Your task to perform on an android device: What's the news this week? Image 0: 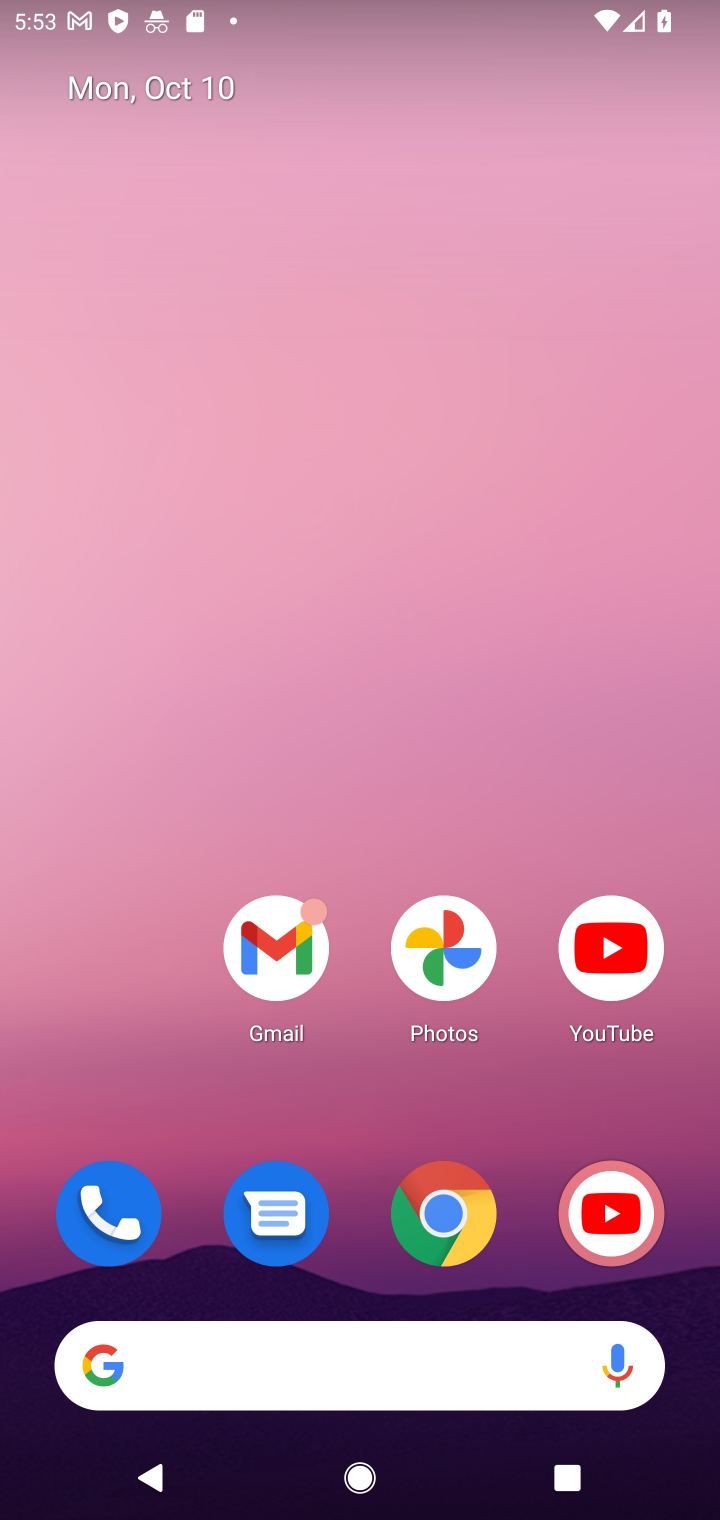
Step 0: click (373, 1366)
Your task to perform on an android device: What's the news this week? Image 1: 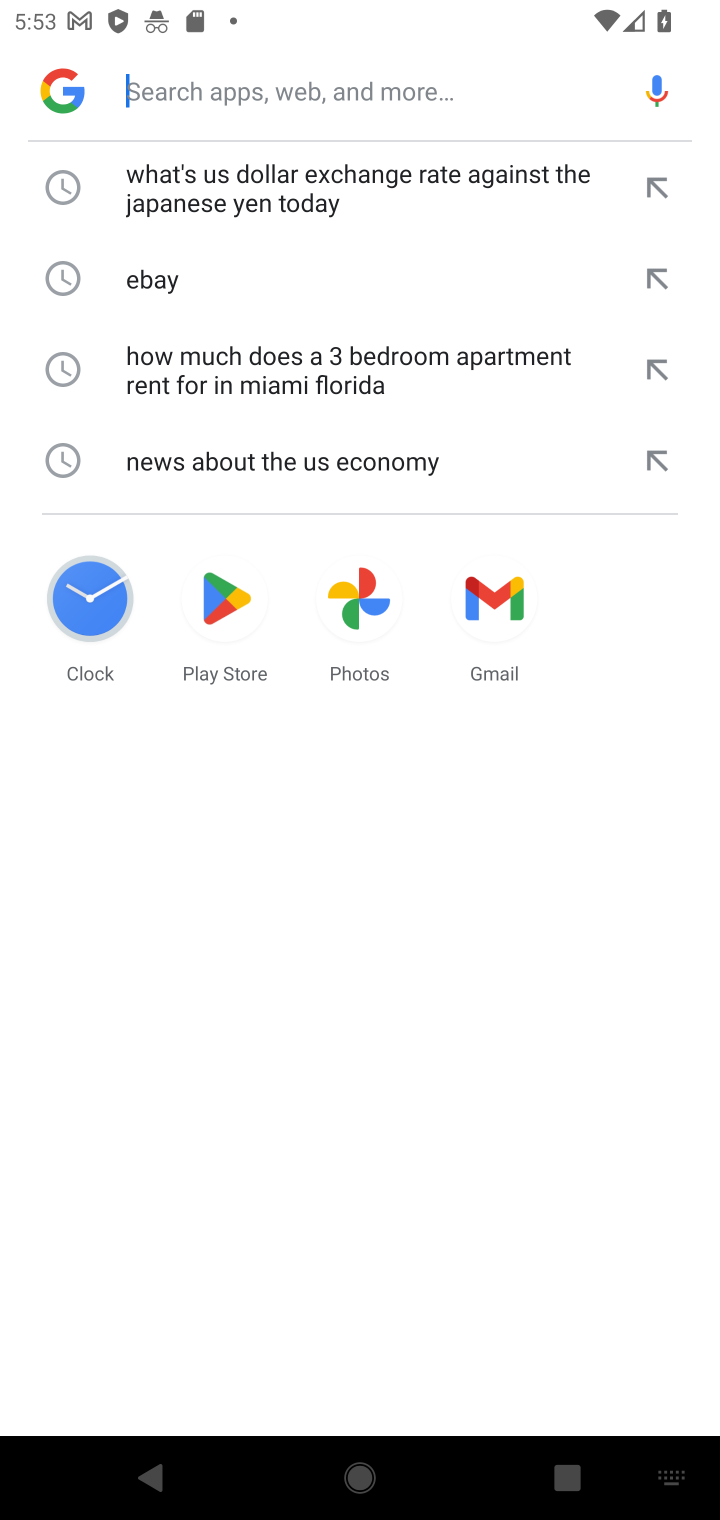
Step 1: click (213, 86)
Your task to perform on an android device: What's the news this week? Image 2: 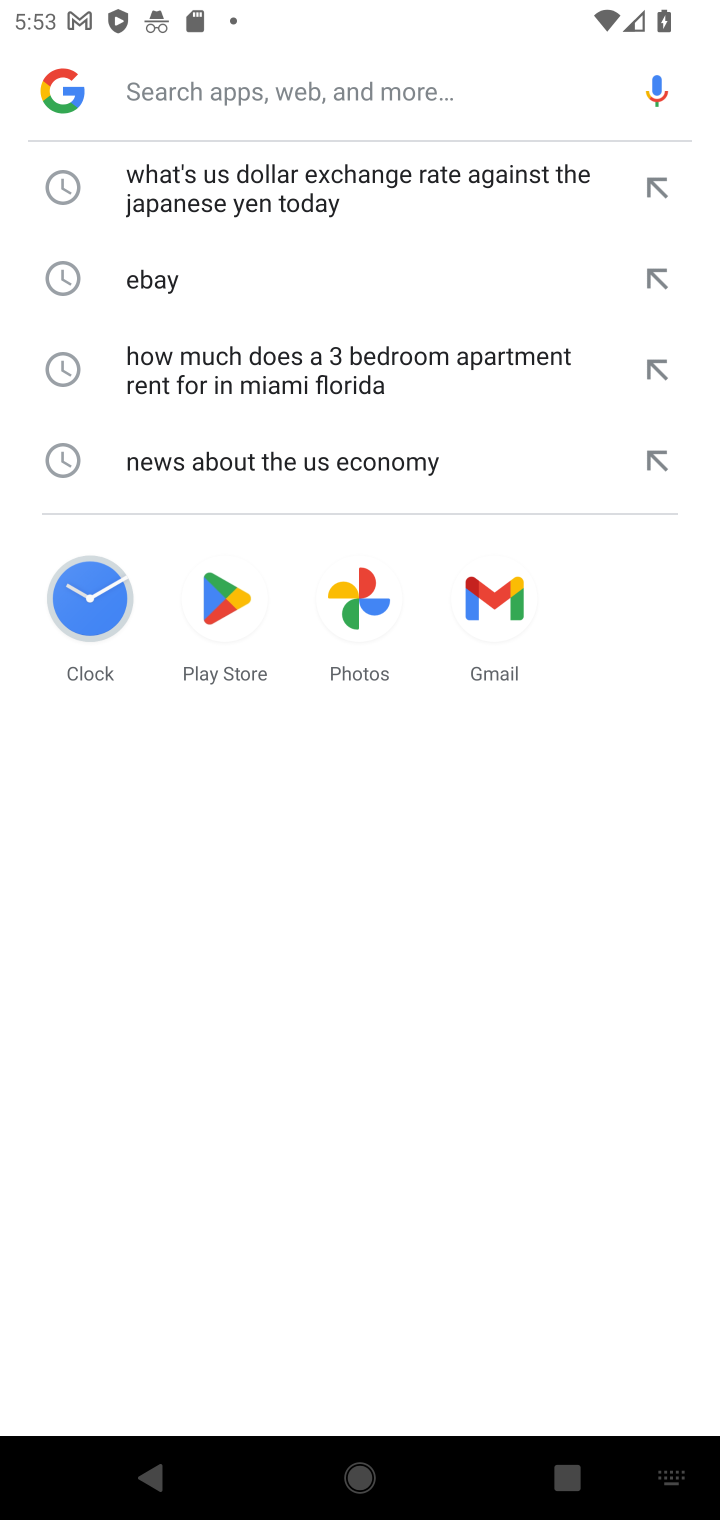
Step 2: type "What's the news this week?"
Your task to perform on an android device: What's the news this week? Image 3: 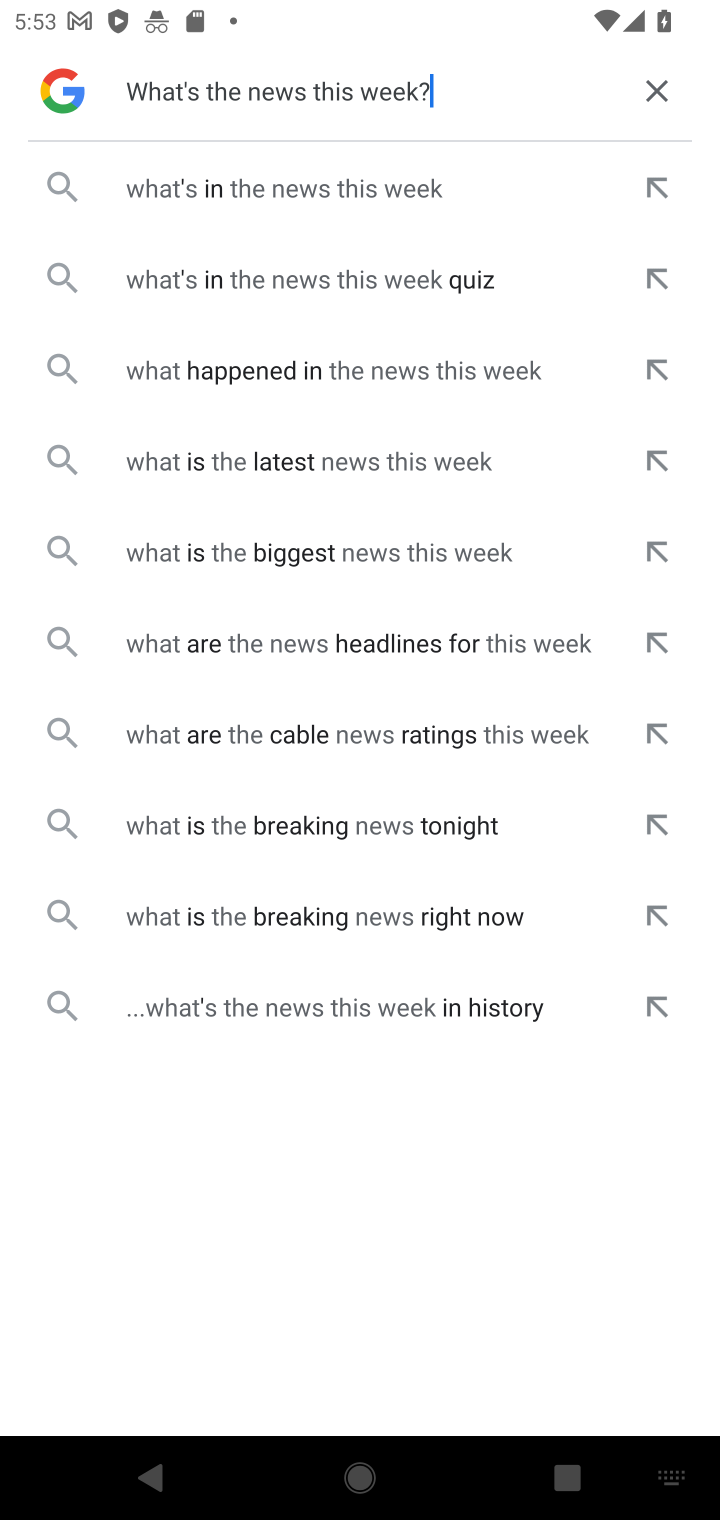
Step 3: click (317, 183)
Your task to perform on an android device: What's the news this week? Image 4: 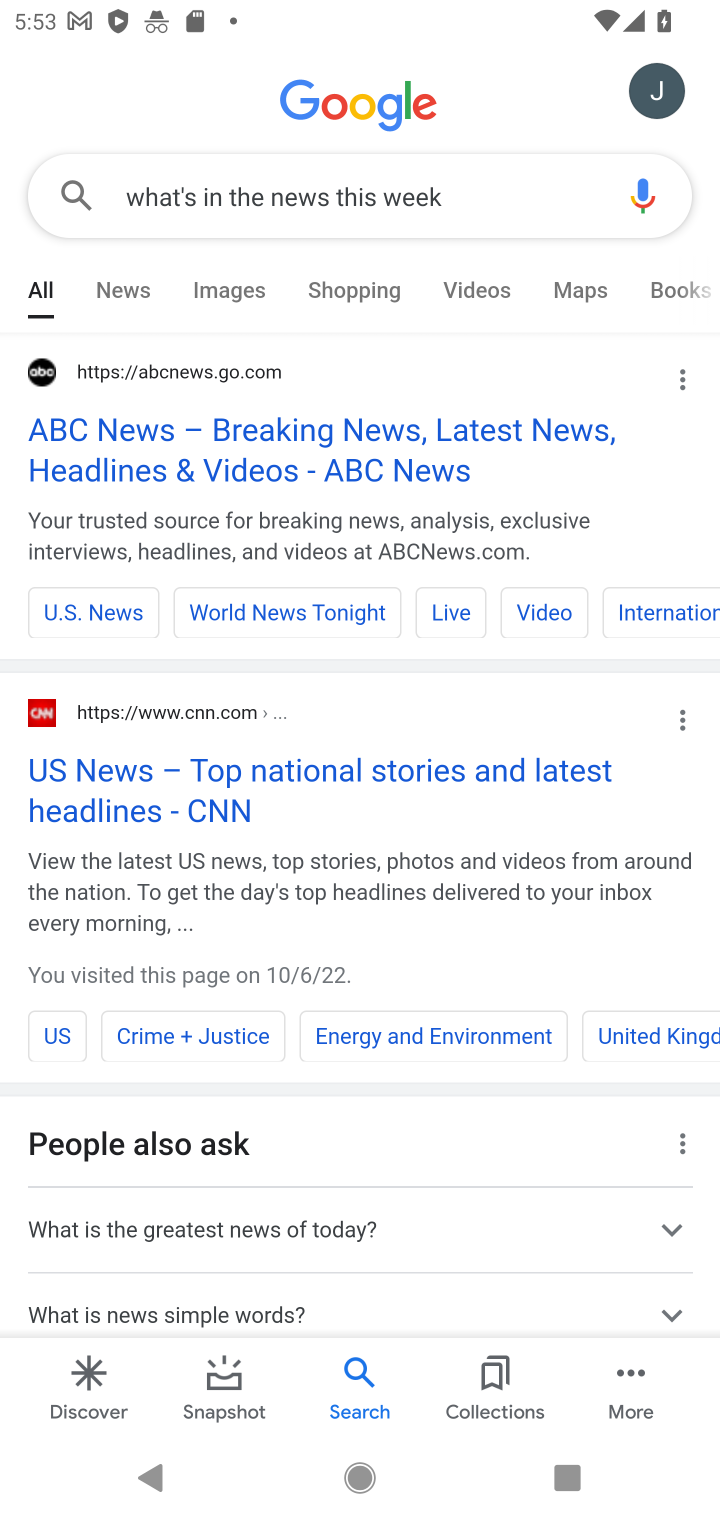
Step 4: task complete